Your task to perform on an android device: check data usage Image 0: 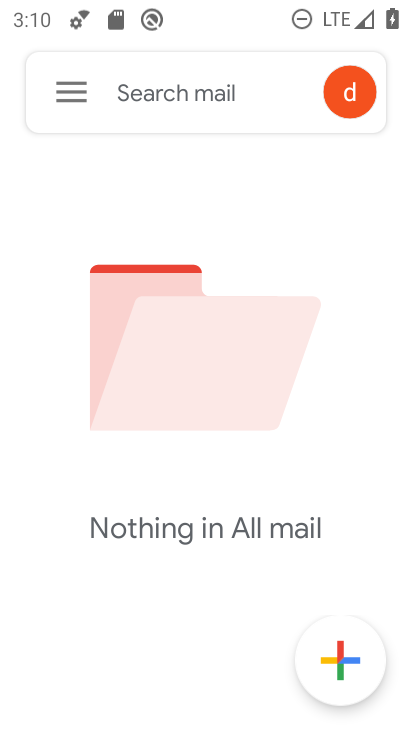
Step 0: press back button
Your task to perform on an android device: check data usage Image 1: 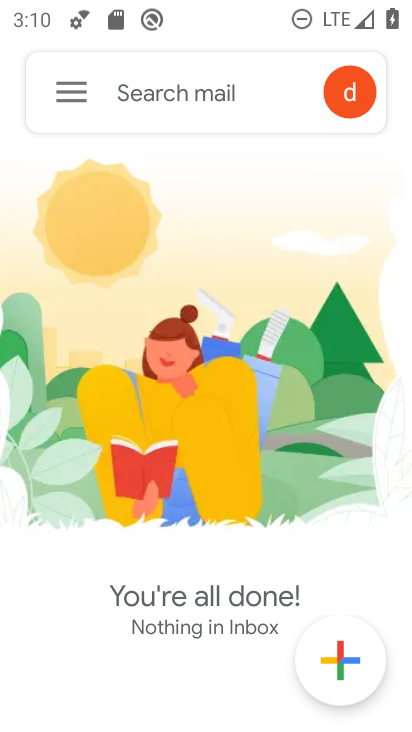
Step 1: press home button
Your task to perform on an android device: check data usage Image 2: 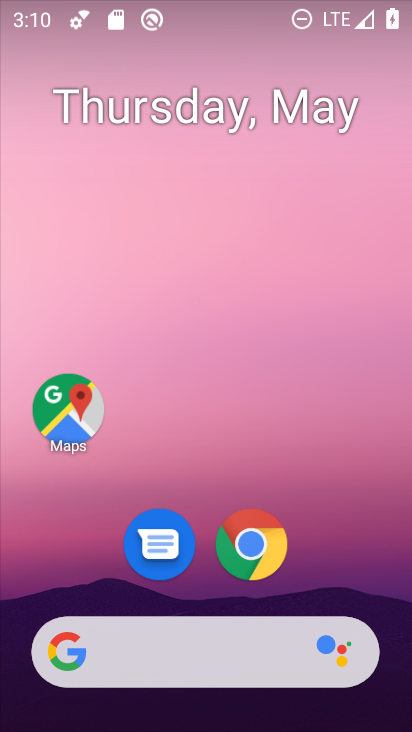
Step 2: drag from (102, 632) to (271, 134)
Your task to perform on an android device: check data usage Image 3: 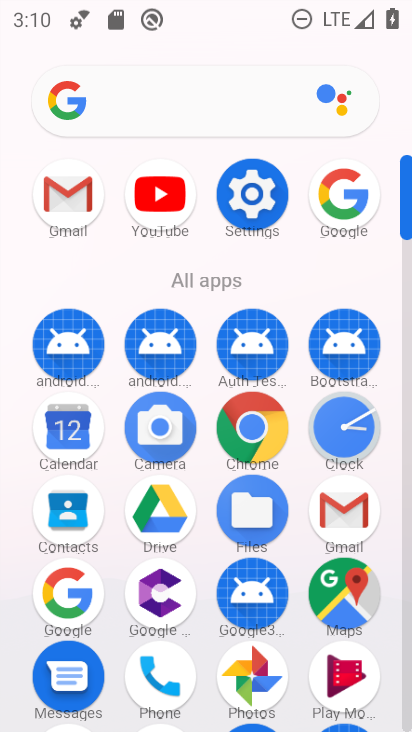
Step 3: click (254, 201)
Your task to perform on an android device: check data usage Image 4: 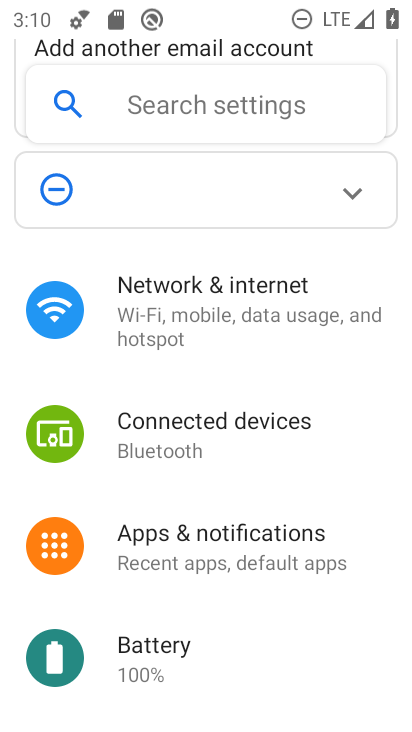
Step 4: click (246, 316)
Your task to perform on an android device: check data usage Image 5: 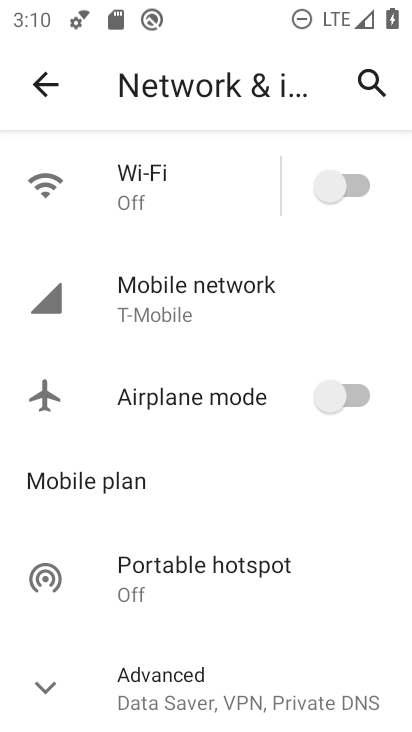
Step 5: click (240, 318)
Your task to perform on an android device: check data usage Image 6: 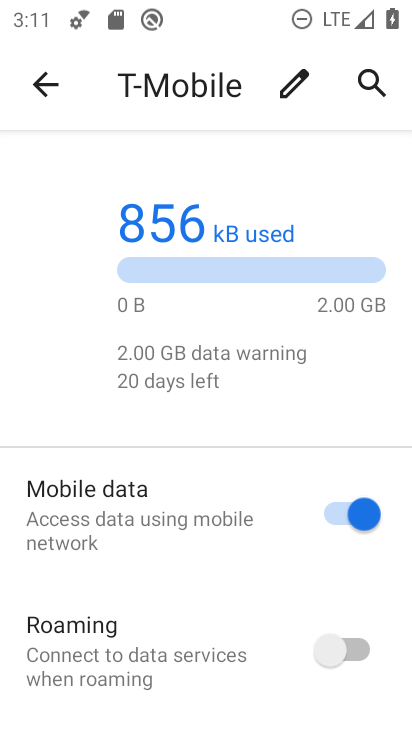
Step 6: task complete